Your task to perform on an android device: empty trash in google photos Image 0: 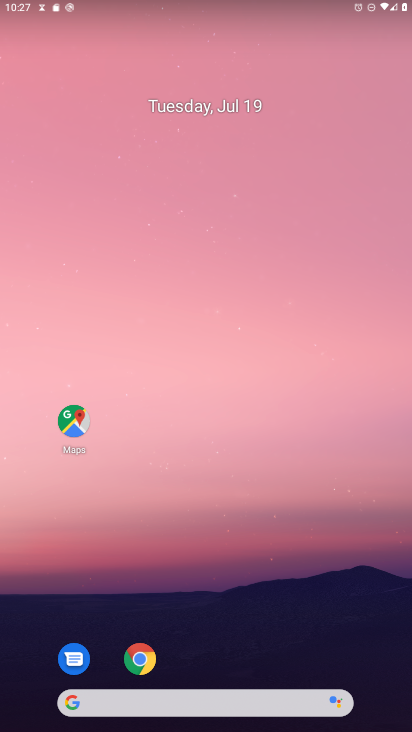
Step 0: drag from (277, 541) to (277, 243)
Your task to perform on an android device: empty trash in google photos Image 1: 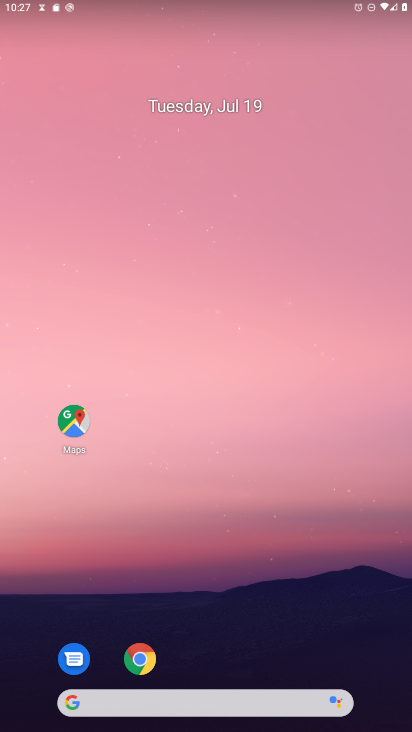
Step 1: drag from (233, 674) to (271, 299)
Your task to perform on an android device: empty trash in google photos Image 2: 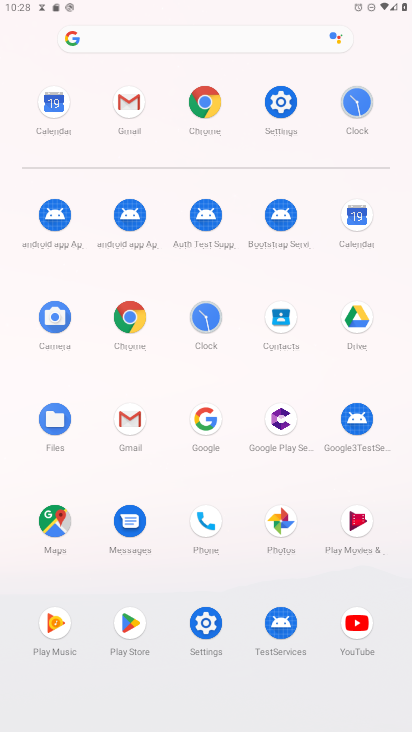
Step 2: click (278, 517)
Your task to perform on an android device: empty trash in google photos Image 3: 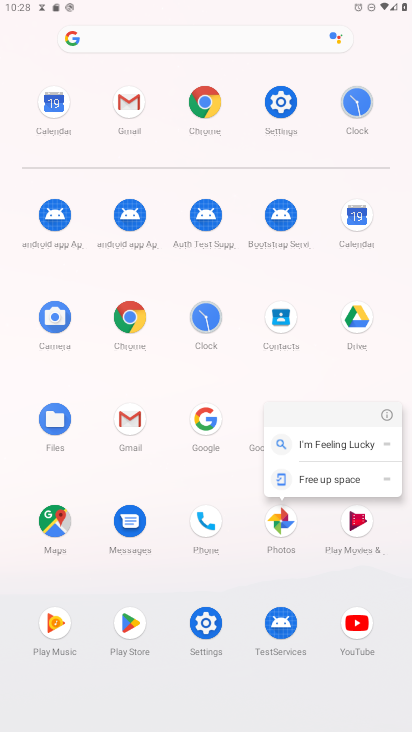
Step 3: click (287, 524)
Your task to perform on an android device: empty trash in google photos Image 4: 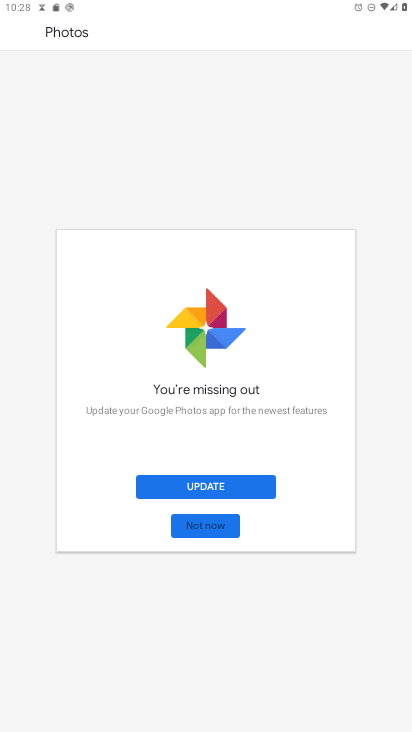
Step 4: click (193, 523)
Your task to perform on an android device: empty trash in google photos Image 5: 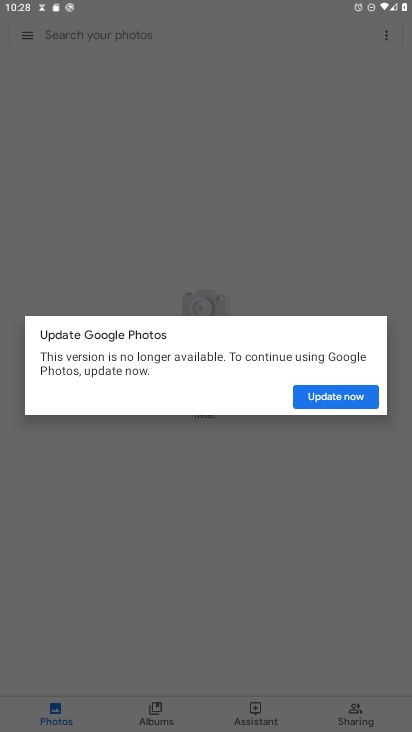
Step 5: click (329, 389)
Your task to perform on an android device: empty trash in google photos Image 6: 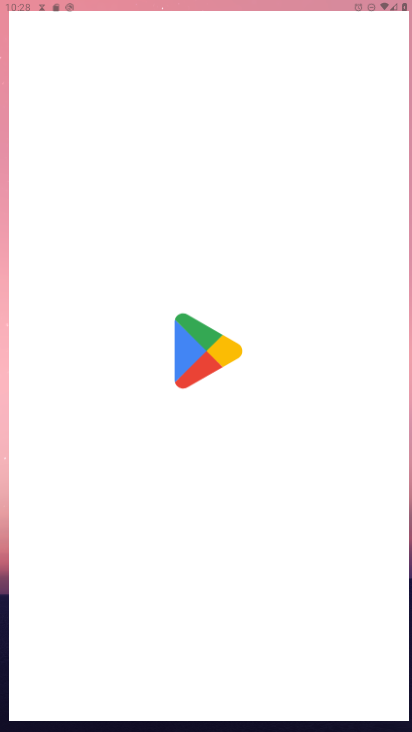
Step 6: press back button
Your task to perform on an android device: empty trash in google photos Image 7: 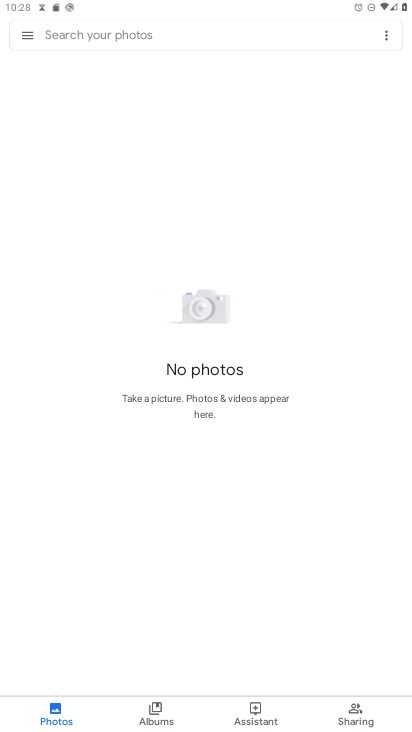
Step 7: click (27, 34)
Your task to perform on an android device: empty trash in google photos Image 8: 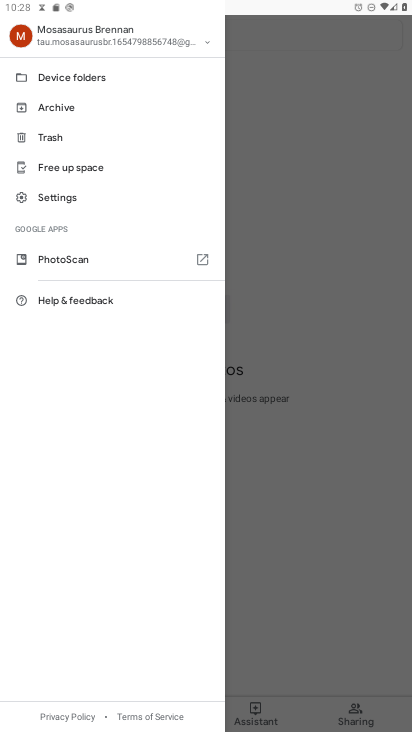
Step 8: click (61, 130)
Your task to perform on an android device: empty trash in google photos Image 9: 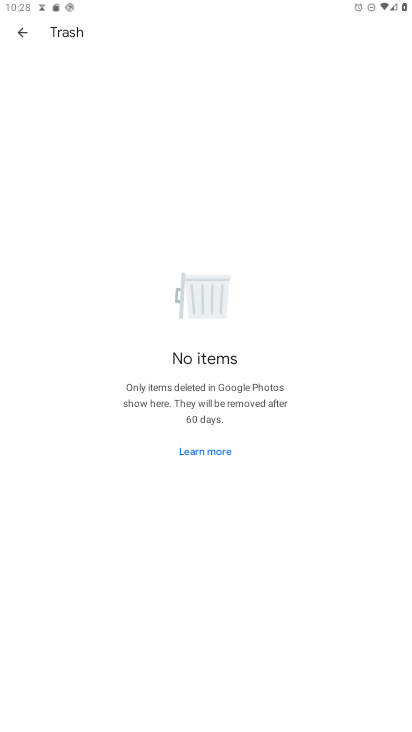
Step 9: task complete